Your task to perform on an android device: change your default location settings in chrome Image 0: 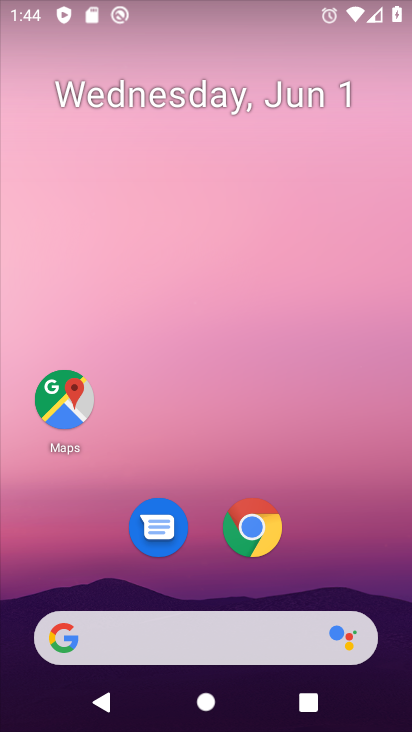
Step 0: drag from (375, 599) to (275, 229)
Your task to perform on an android device: change your default location settings in chrome Image 1: 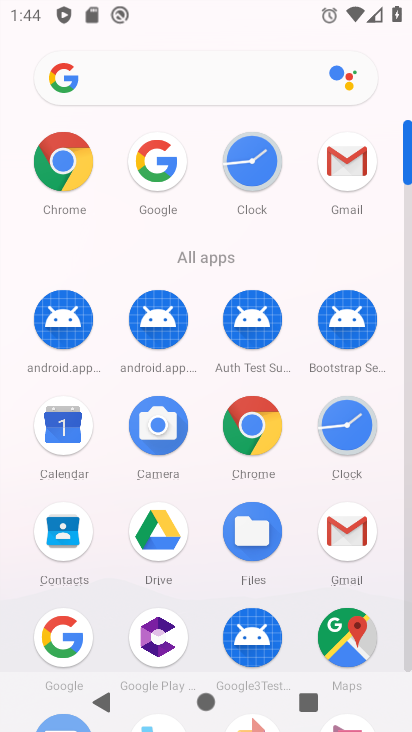
Step 1: click (405, 663)
Your task to perform on an android device: change your default location settings in chrome Image 2: 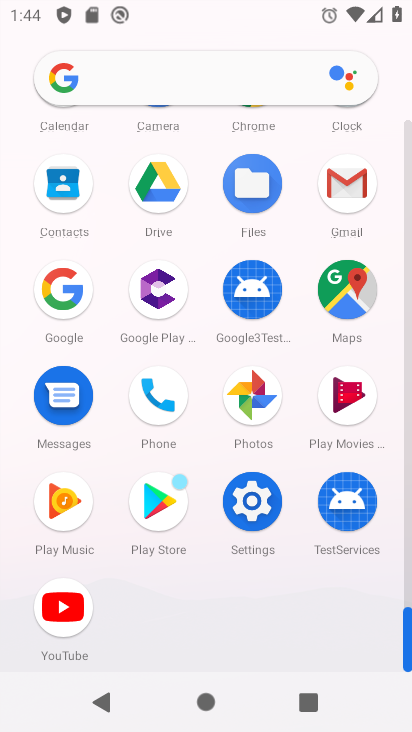
Step 2: click (405, 198)
Your task to perform on an android device: change your default location settings in chrome Image 3: 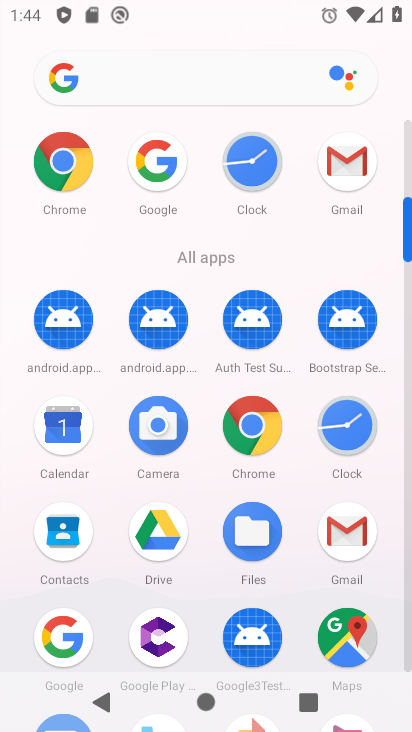
Step 3: click (67, 158)
Your task to perform on an android device: change your default location settings in chrome Image 4: 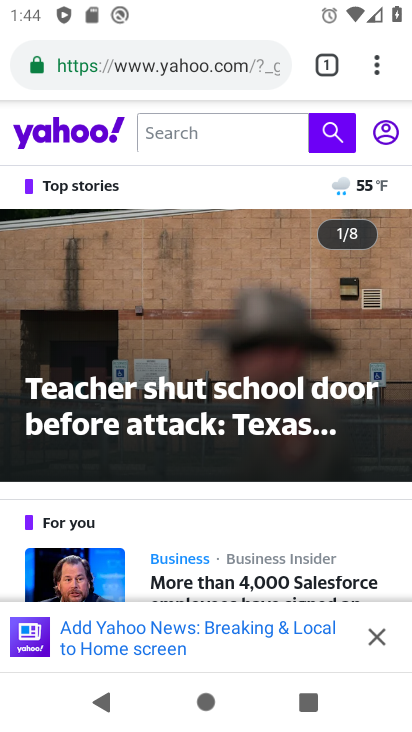
Step 4: click (364, 74)
Your task to perform on an android device: change your default location settings in chrome Image 5: 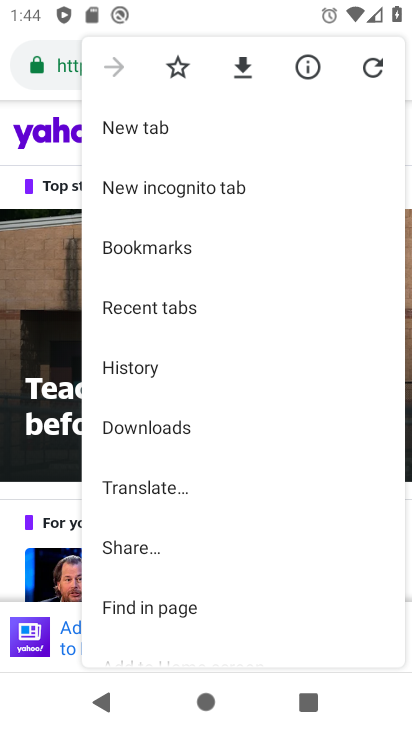
Step 5: drag from (206, 577) to (184, 84)
Your task to perform on an android device: change your default location settings in chrome Image 6: 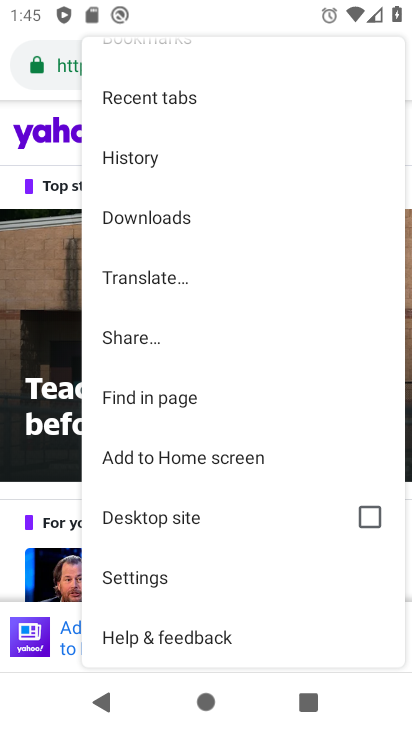
Step 6: click (190, 572)
Your task to perform on an android device: change your default location settings in chrome Image 7: 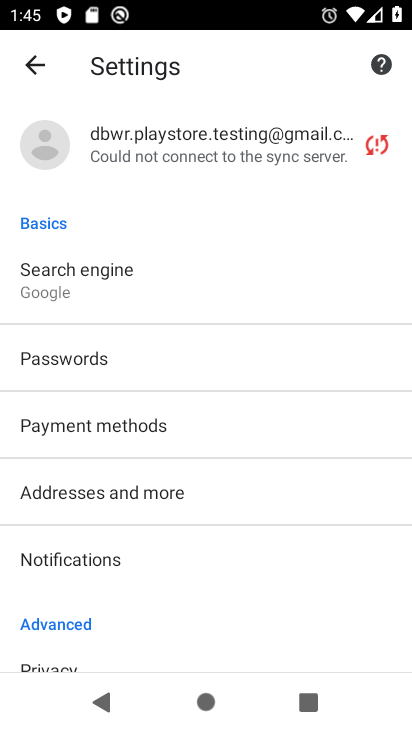
Step 7: drag from (197, 625) to (165, 55)
Your task to perform on an android device: change your default location settings in chrome Image 8: 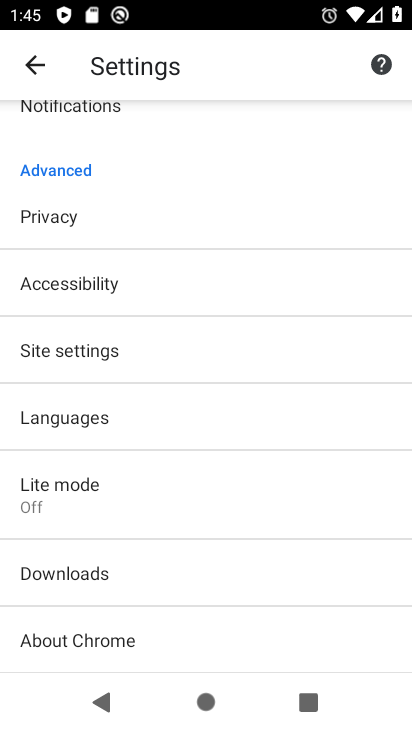
Step 8: click (164, 362)
Your task to perform on an android device: change your default location settings in chrome Image 9: 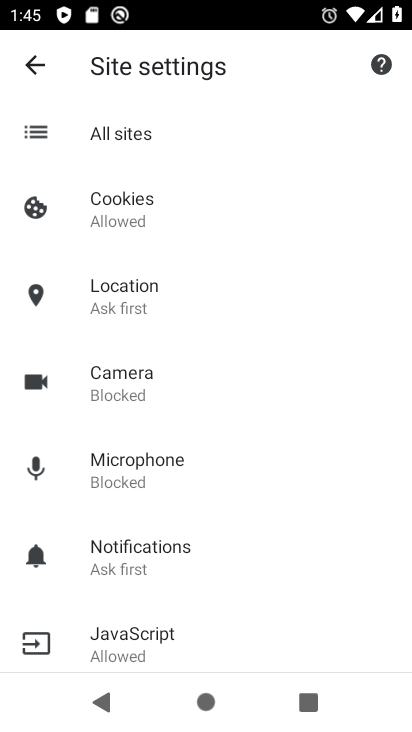
Step 9: click (170, 317)
Your task to perform on an android device: change your default location settings in chrome Image 10: 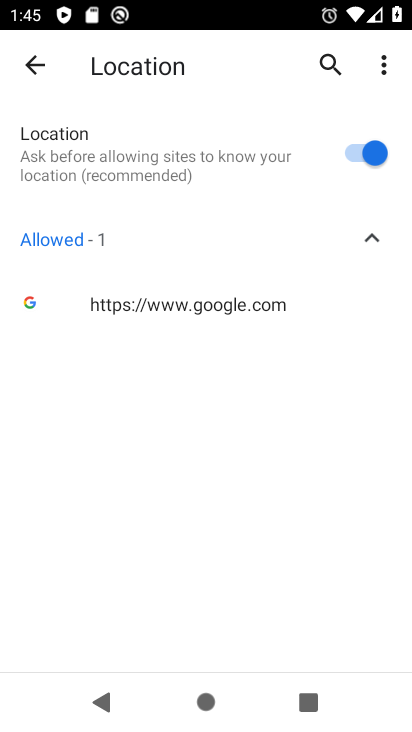
Step 10: task complete